Your task to perform on an android device: find snoozed emails in the gmail app Image 0: 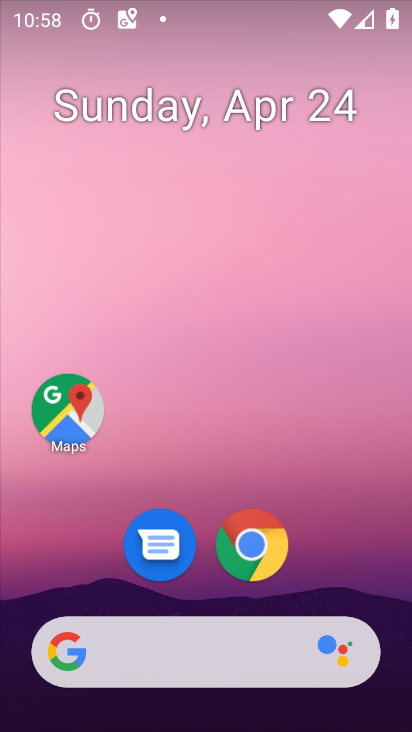
Step 0: drag from (270, 639) to (270, 138)
Your task to perform on an android device: find snoozed emails in the gmail app Image 1: 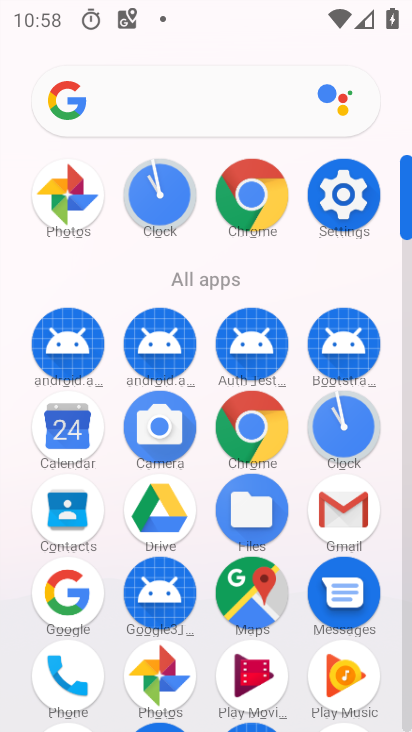
Step 1: click (312, 508)
Your task to perform on an android device: find snoozed emails in the gmail app Image 2: 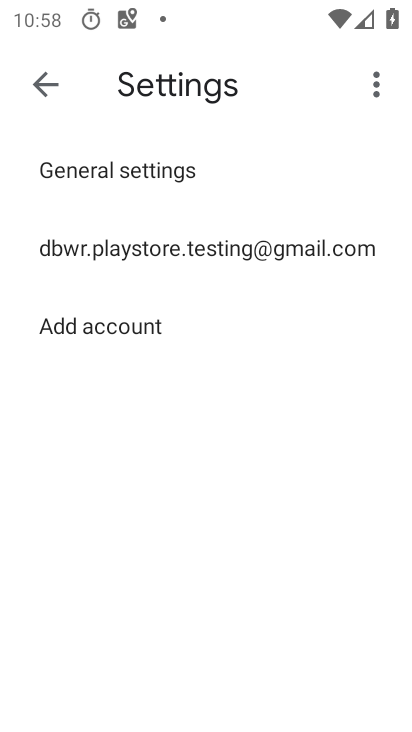
Step 2: click (157, 250)
Your task to perform on an android device: find snoozed emails in the gmail app Image 3: 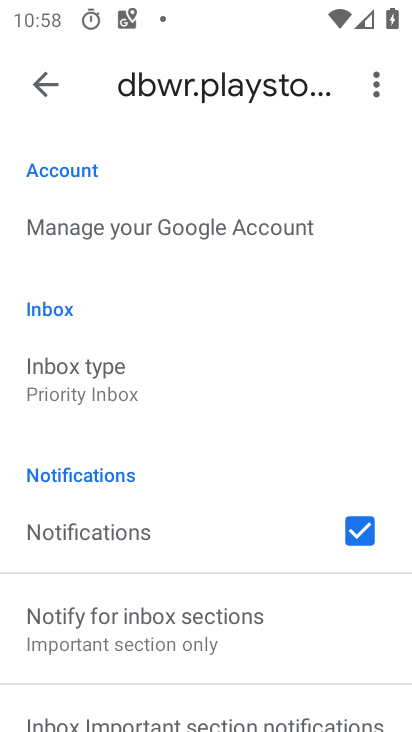
Step 3: drag from (136, 571) to (187, 312)
Your task to perform on an android device: find snoozed emails in the gmail app Image 4: 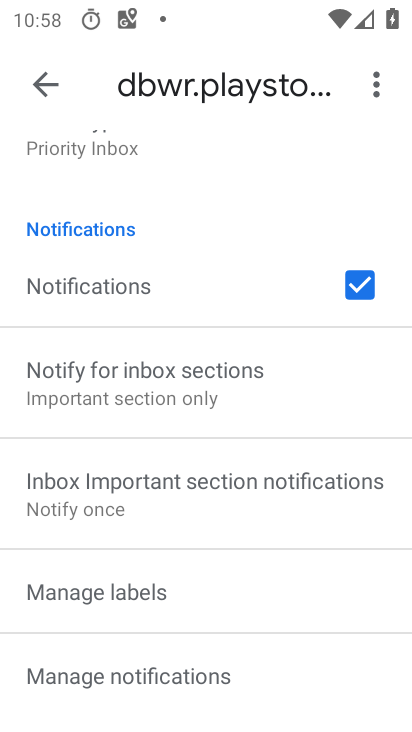
Step 4: click (37, 78)
Your task to perform on an android device: find snoozed emails in the gmail app Image 5: 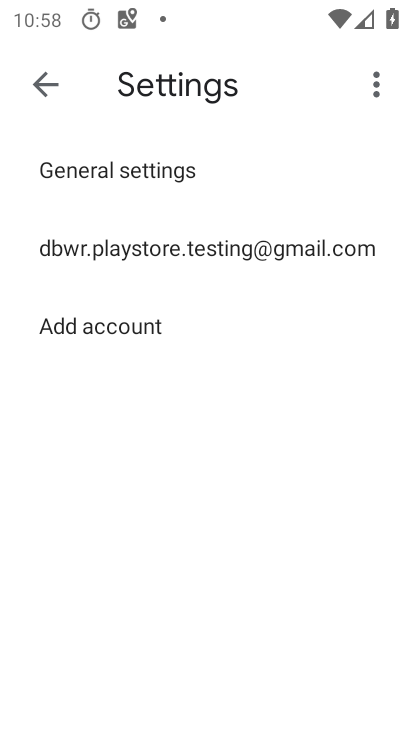
Step 5: click (37, 78)
Your task to perform on an android device: find snoozed emails in the gmail app Image 6: 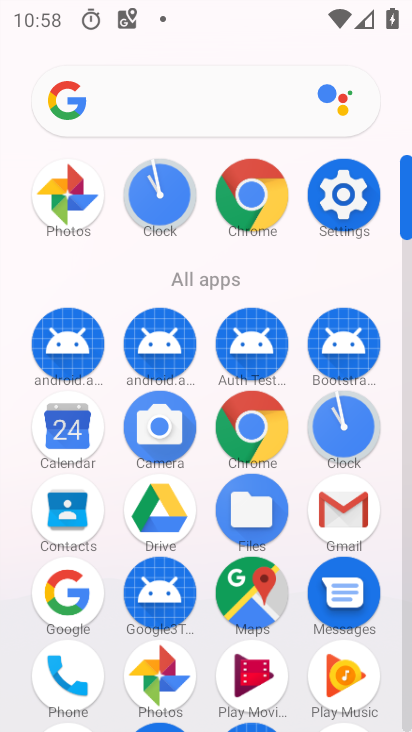
Step 6: click (353, 506)
Your task to perform on an android device: find snoozed emails in the gmail app Image 7: 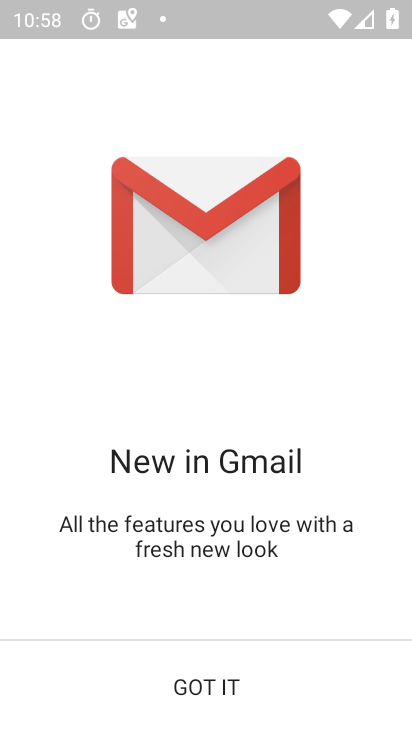
Step 7: click (246, 683)
Your task to perform on an android device: find snoozed emails in the gmail app Image 8: 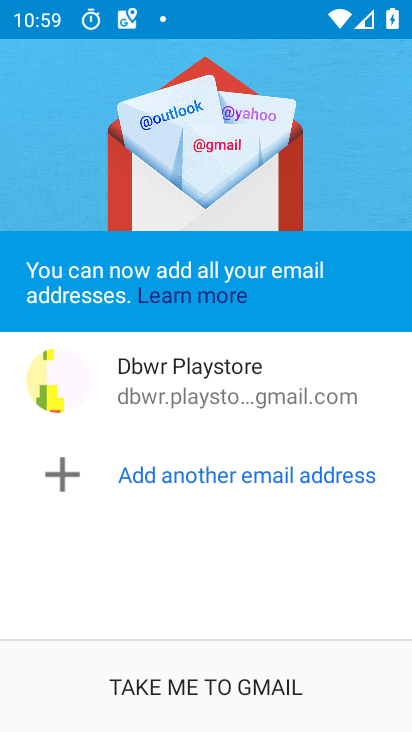
Step 8: click (203, 665)
Your task to perform on an android device: find snoozed emails in the gmail app Image 9: 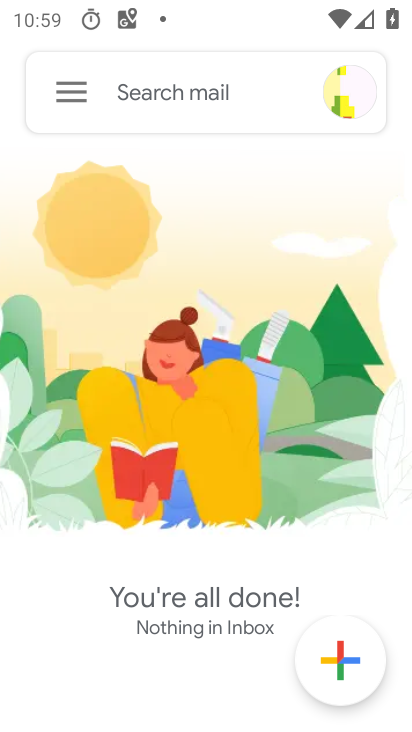
Step 9: click (53, 129)
Your task to perform on an android device: find snoozed emails in the gmail app Image 10: 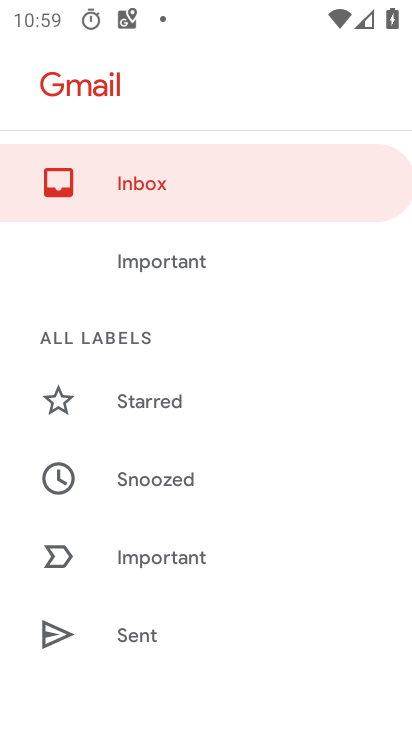
Step 10: click (117, 471)
Your task to perform on an android device: find snoozed emails in the gmail app Image 11: 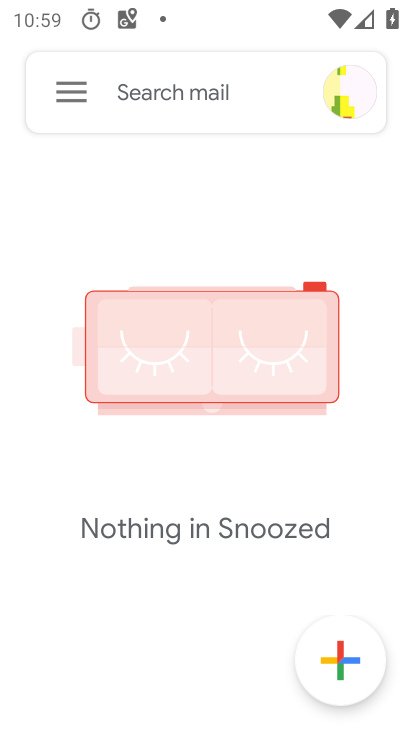
Step 11: task complete